Your task to perform on an android device: Set the phone to "Do not disturb". Image 0: 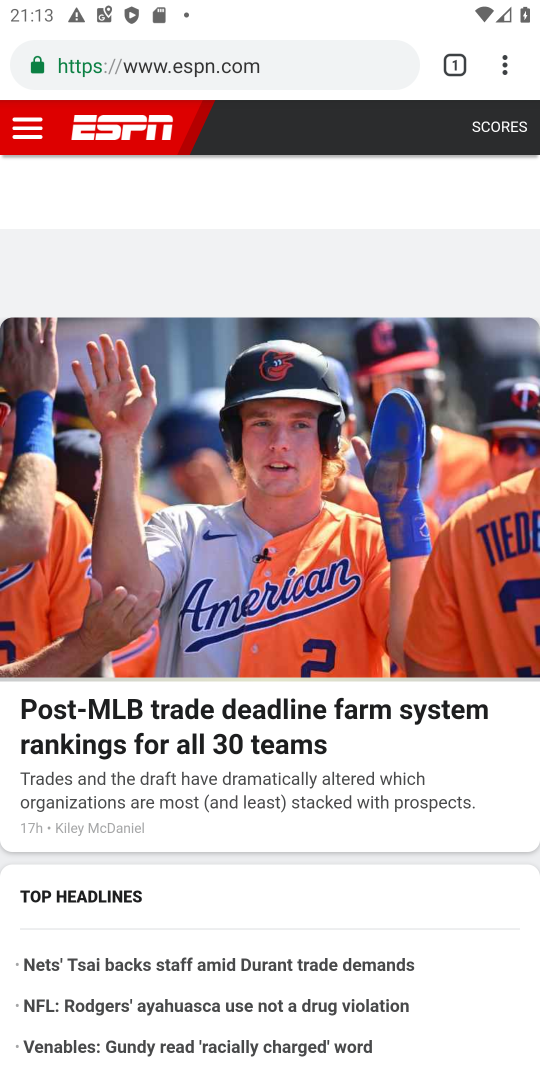
Step 0: press home button
Your task to perform on an android device: Set the phone to "Do not disturb". Image 1: 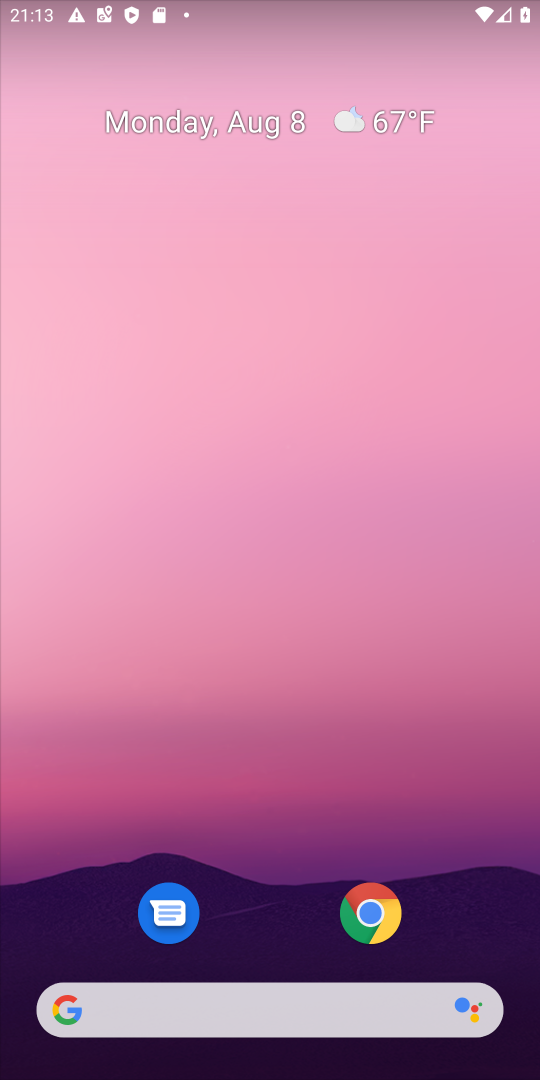
Step 1: drag from (205, 1011) to (355, 277)
Your task to perform on an android device: Set the phone to "Do not disturb". Image 2: 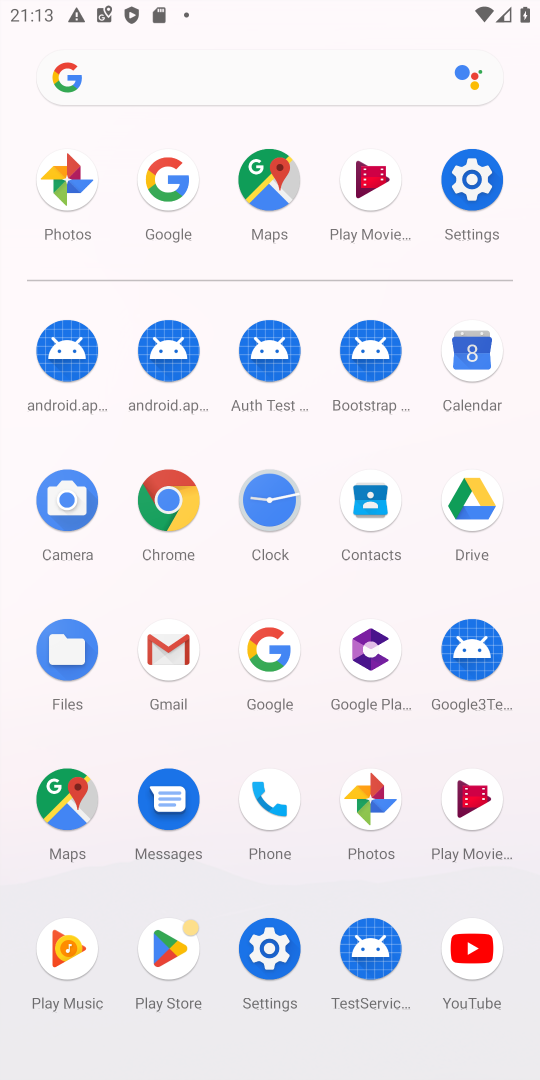
Step 2: click (473, 178)
Your task to perform on an android device: Set the phone to "Do not disturb". Image 3: 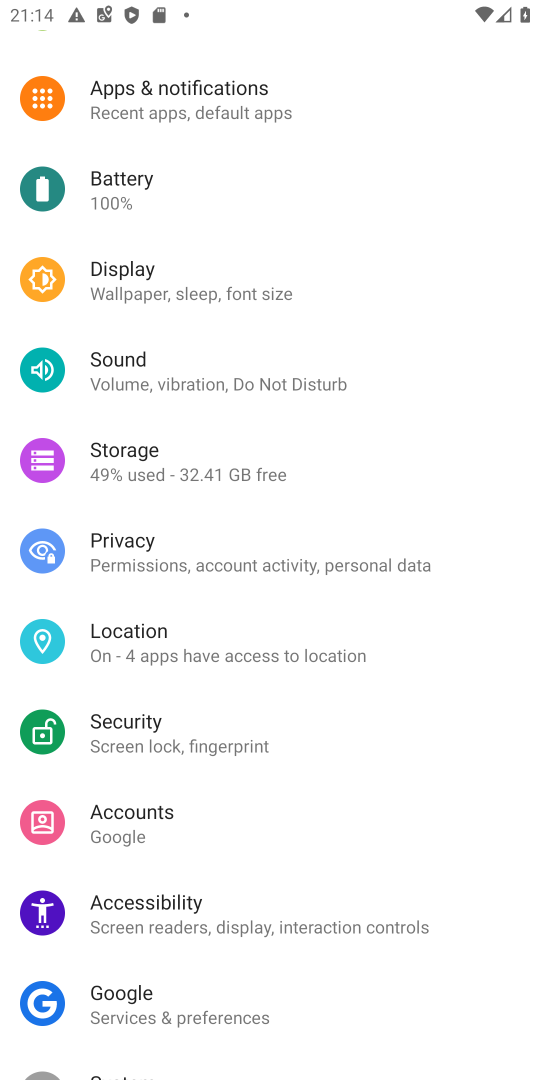
Step 3: click (178, 370)
Your task to perform on an android device: Set the phone to "Do not disturb". Image 4: 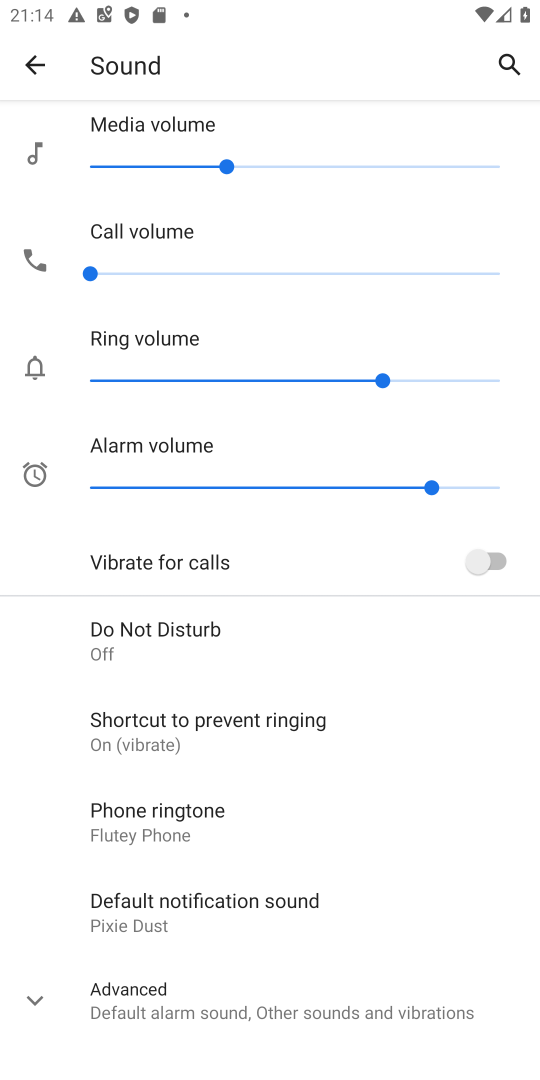
Step 4: click (185, 631)
Your task to perform on an android device: Set the phone to "Do not disturb". Image 5: 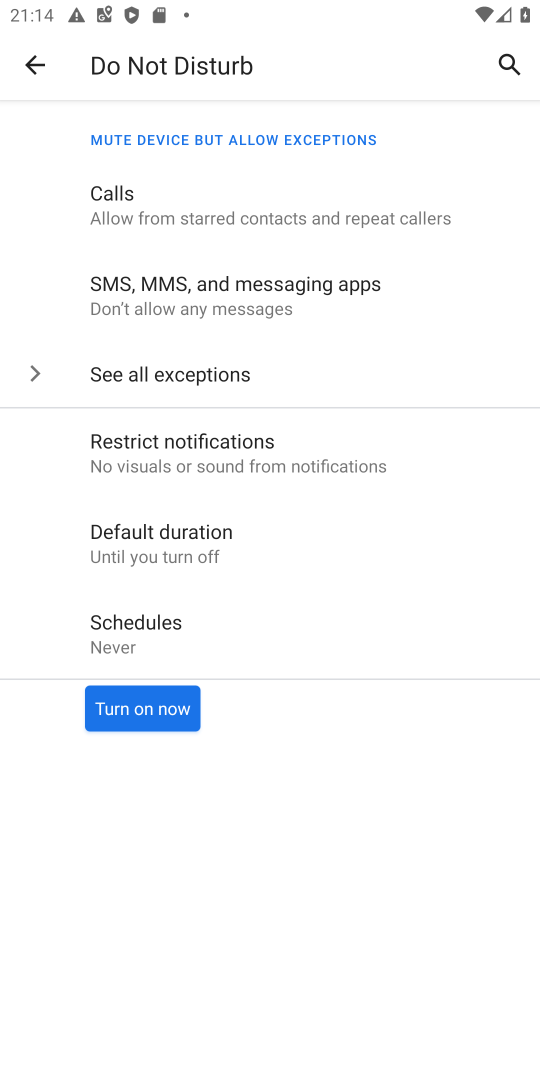
Step 5: click (125, 704)
Your task to perform on an android device: Set the phone to "Do not disturb". Image 6: 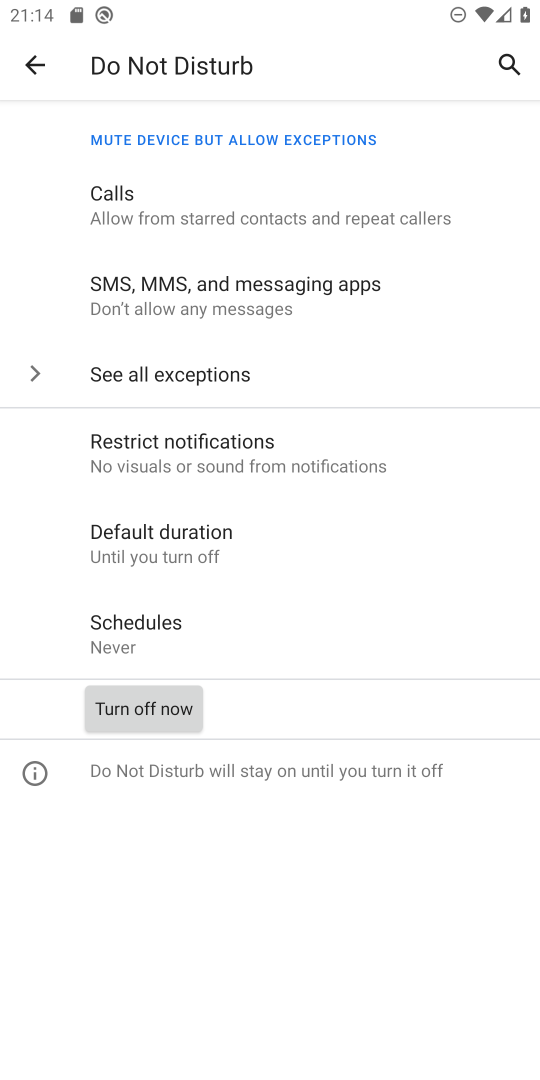
Step 6: task complete